Your task to perform on an android device: refresh tabs in the chrome app Image 0: 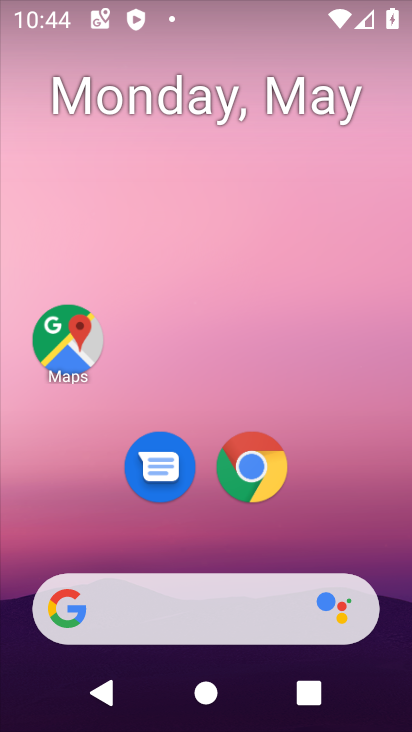
Step 0: click (258, 474)
Your task to perform on an android device: refresh tabs in the chrome app Image 1: 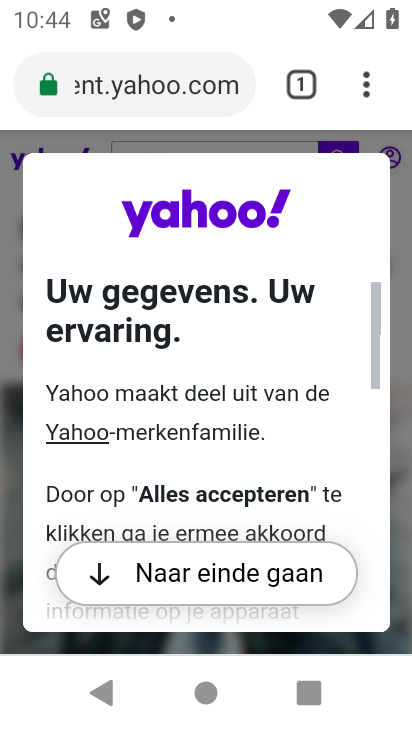
Step 1: click (366, 95)
Your task to perform on an android device: refresh tabs in the chrome app Image 2: 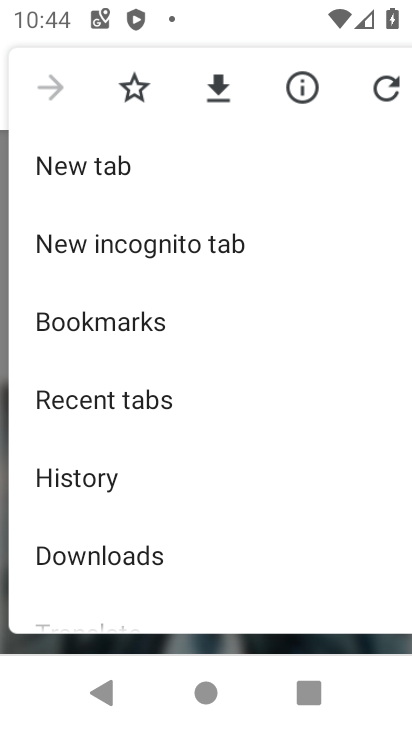
Step 2: click (385, 87)
Your task to perform on an android device: refresh tabs in the chrome app Image 3: 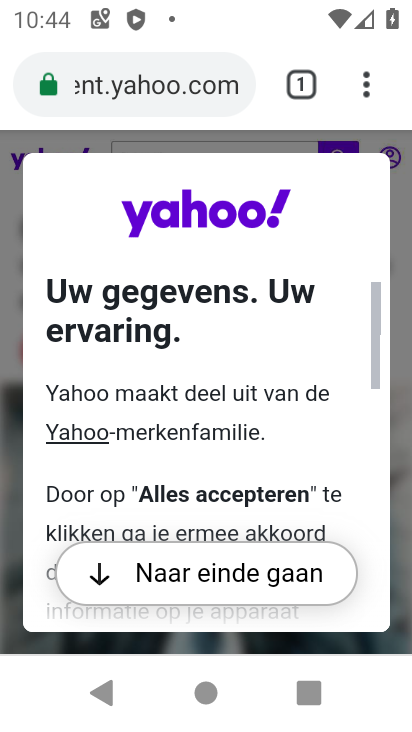
Step 3: task complete